Your task to perform on an android device: Search for the new Nintendo switch on Best Buy Image 0: 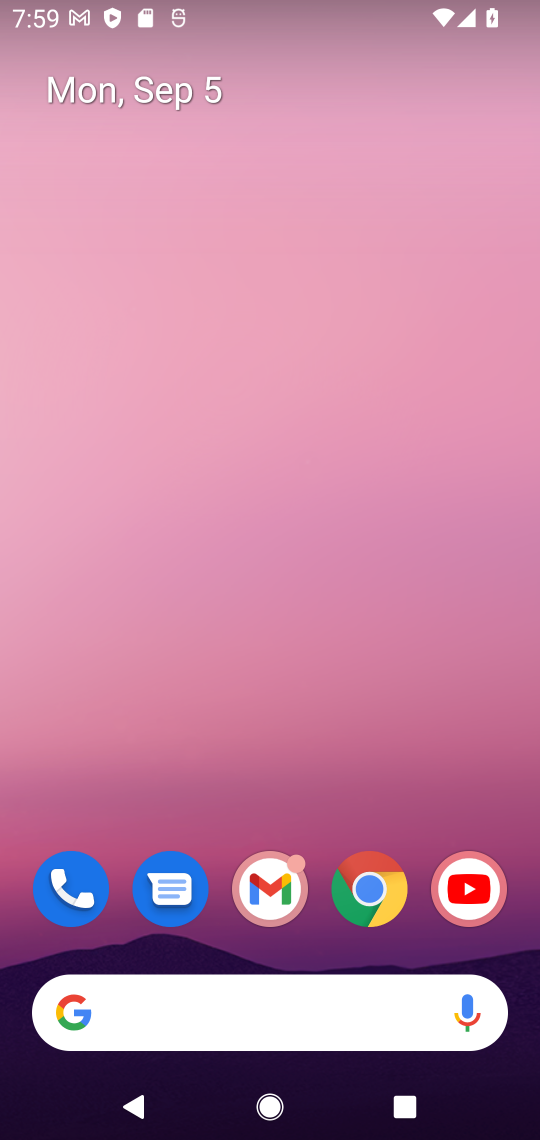
Step 0: click (259, 1000)
Your task to perform on an android device: Search for the new Nintendo switch on Best Buy Image 1: 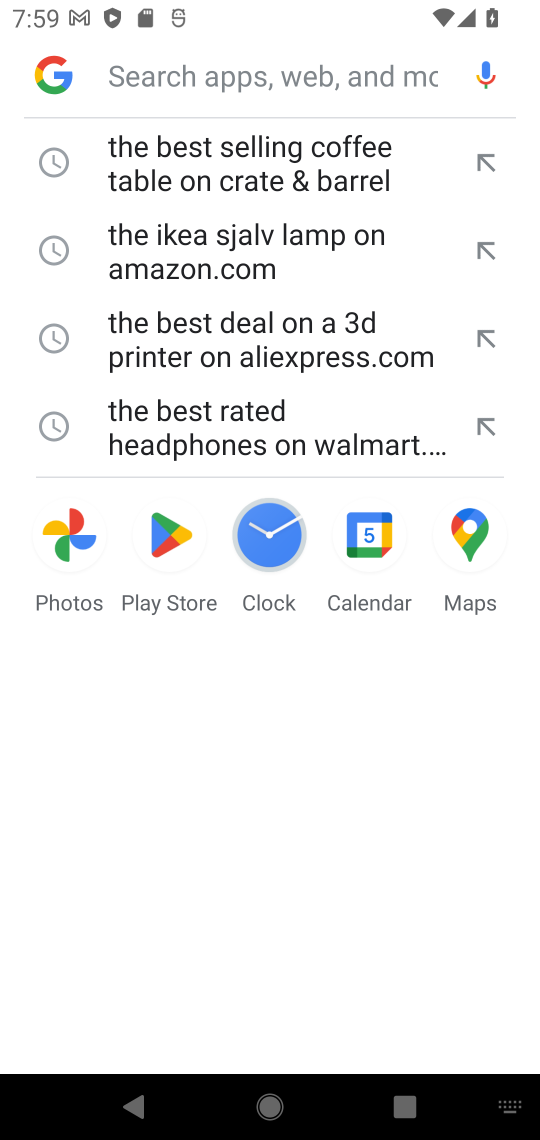
Step 1: click (259, 1000)
Your task to perform on an android device: Search for the new Nintendo switch on Best Buy Image 2: 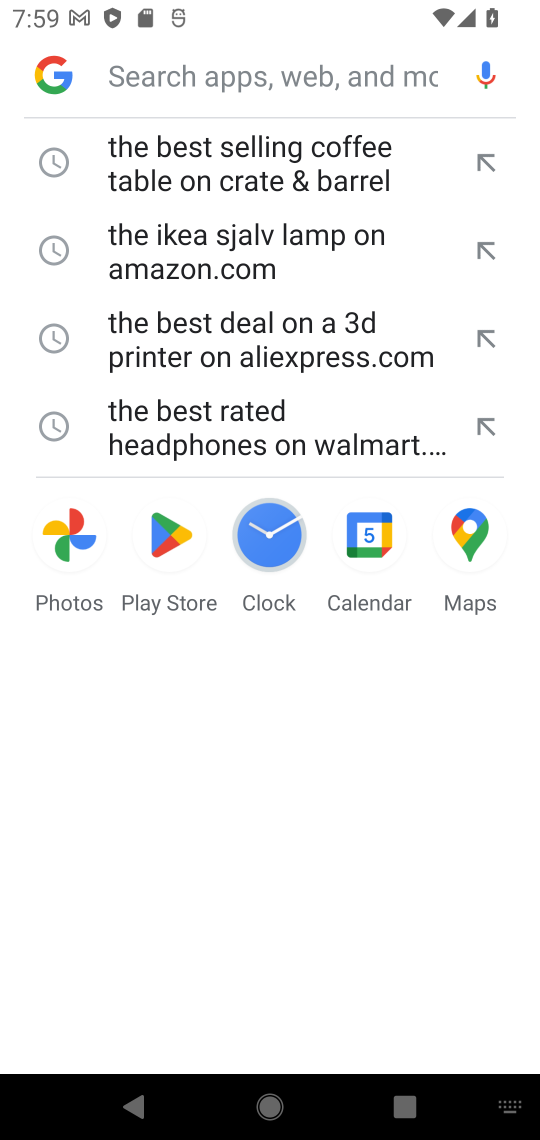
Step 2: type " the new Nintendo switch on Best Buy"
Your task to perform on an android device: Search for the new Nintendo switch on Best Buy Image 3: 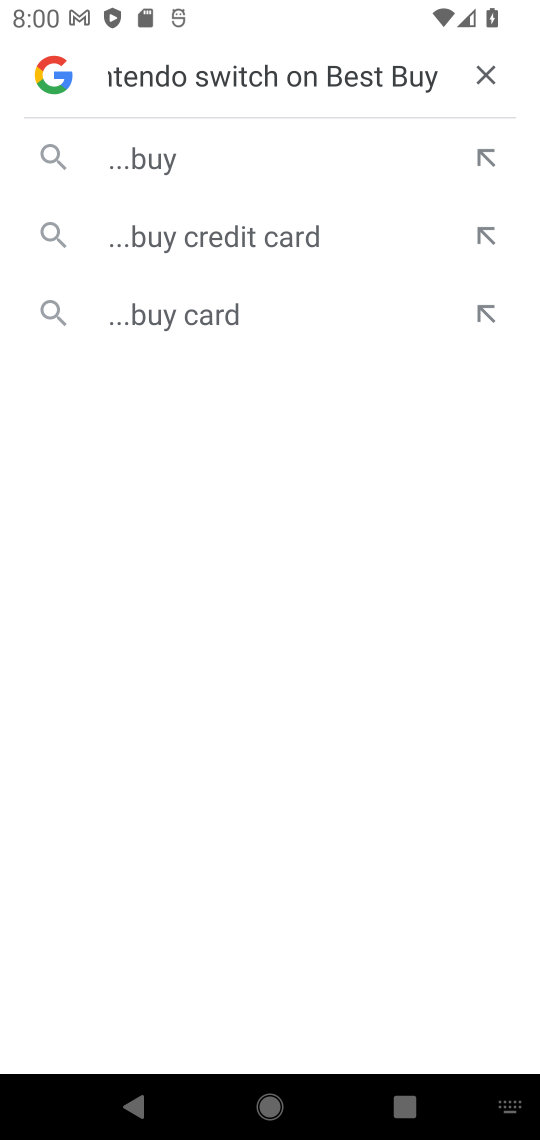
Step 3: click (154, 174)
Your task to perform on an android device: Search for the new Nintendo switch on Best Buy Image 4: 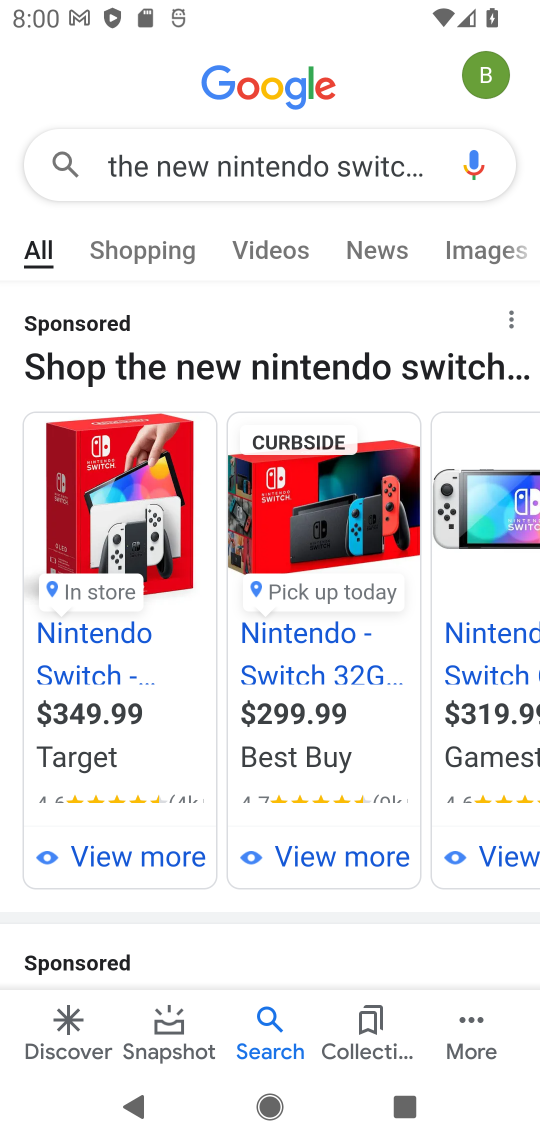
Step 4: task complete